Your task to perform on an android device: turn pop-ups on in chrome Image 0: 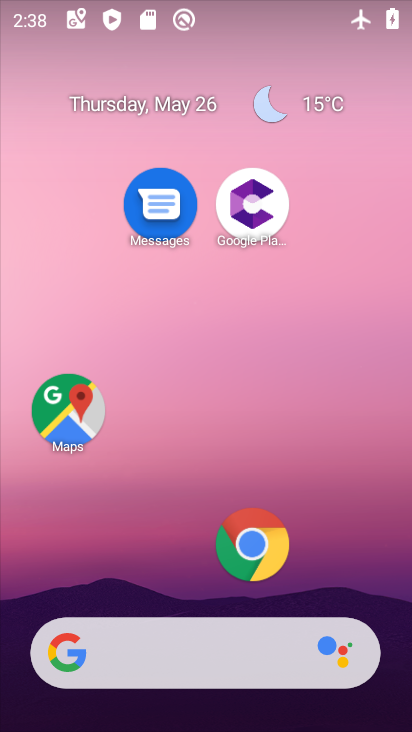
Step 0: click (279, 544)
Your task to perform on an android device: turn pop-ups on in chrome Image 1: 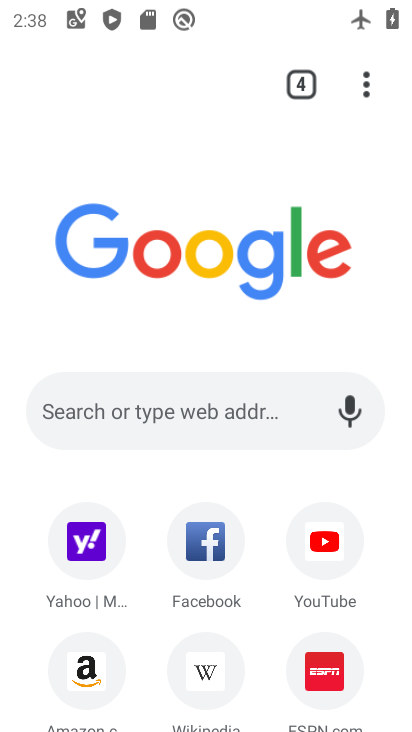
Step 1: click (382, 69)
Your task to perform on an android device: turn pop-ups on in chrome Image 2: 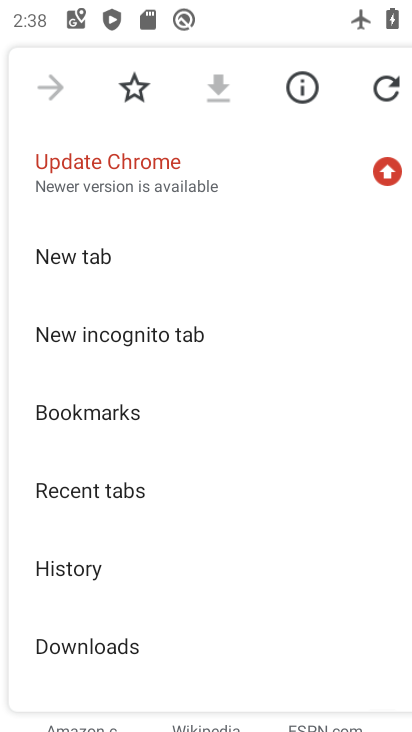
Step 2: drag from (76, 629) to (150, 226)
Your task to perform on an android device: turn pop-ups on in chrome Image 3: 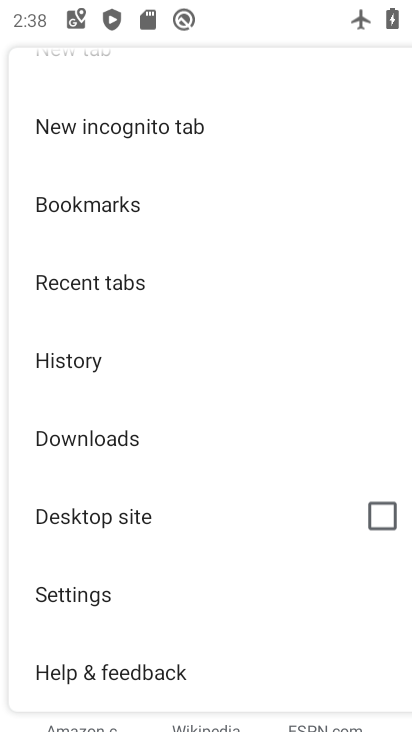
Step 3: click (83, 599)
Your task to perform on an android device: turn pop-ups on in chrome Image 4: 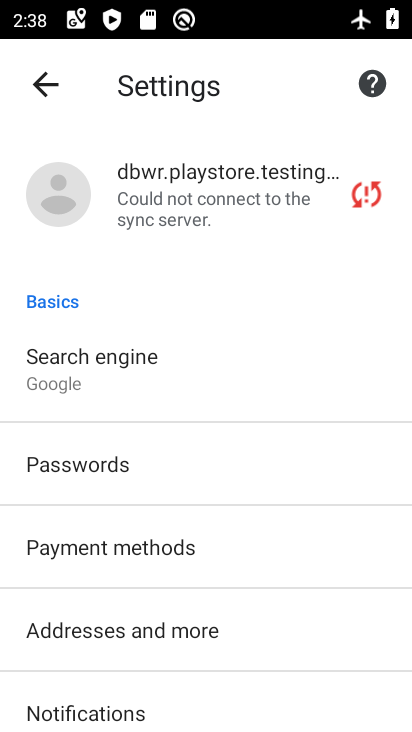
Step 4: drag from (106, 579) to (138, 229)
Your task to perform on an android device: turn pop-ups on in chrome Image 5: 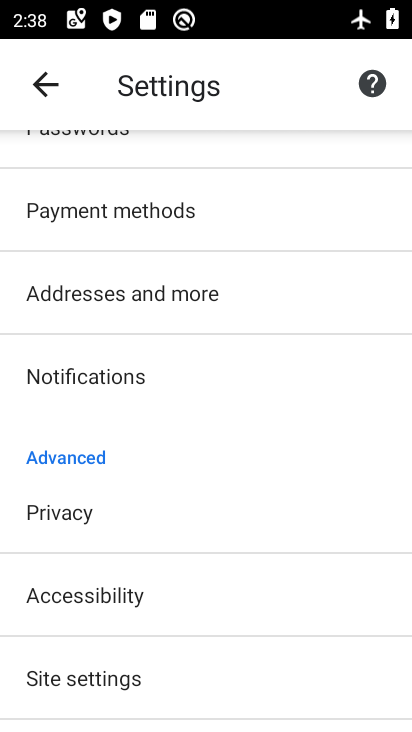
Step 5: drag from (114, 639) to (117, 245)
Your task to perform on an android device: turn pop-ups on in chrome Image 6: 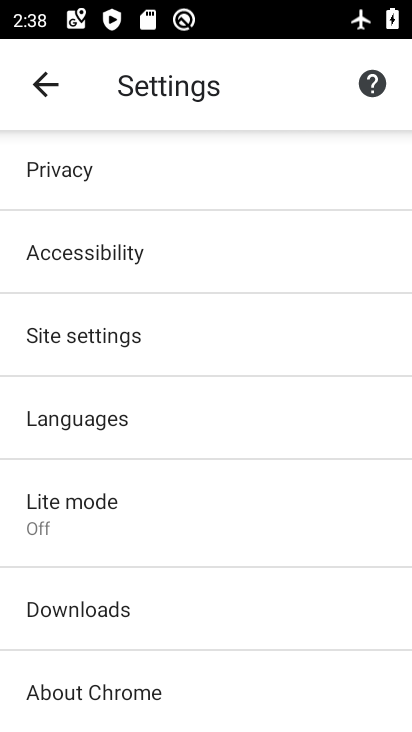
Step 6: drag from (111, 633) to (203, 211)
Your task to perform on an android device: turn pop-ups on in chrome Image 7: 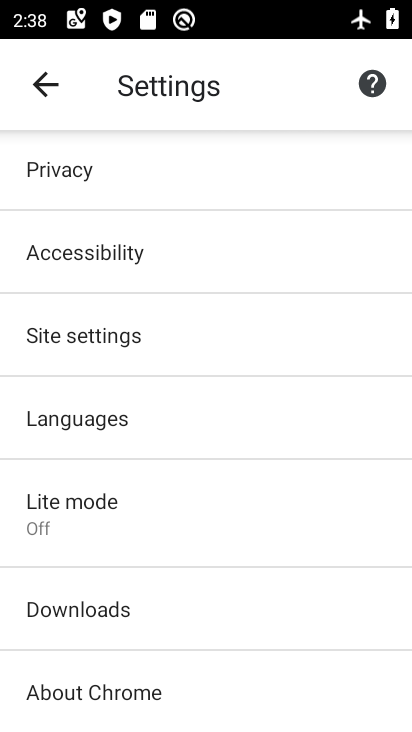
Step 7: click (134, 326)
Your task to perform on an android device: turn pop-ups on in chrome Image 8: 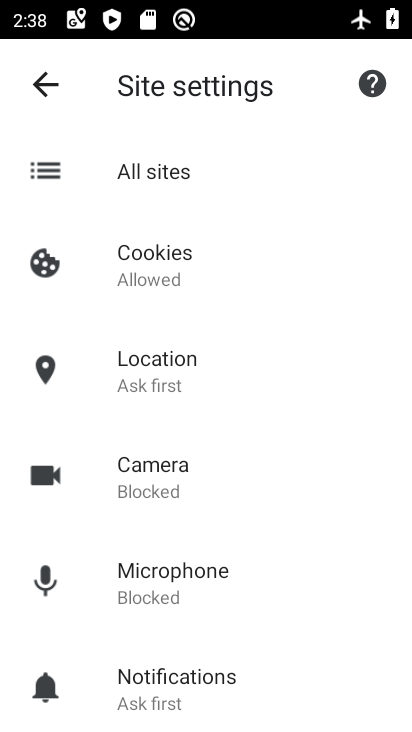
Step 8: drag from (125, 674) to (255, 225)
Your task to perform on an android device: turn pop-ups on in chrome Image 9: 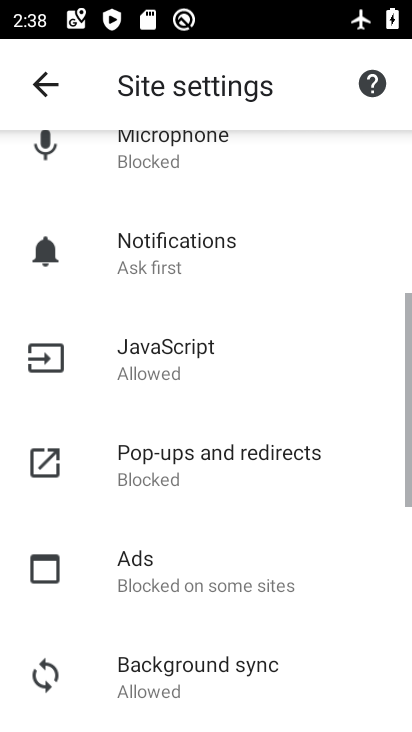
Step 9: click (266, 445)
Your task to perform on an android device: turn pop-ups on in chrome Image 10: 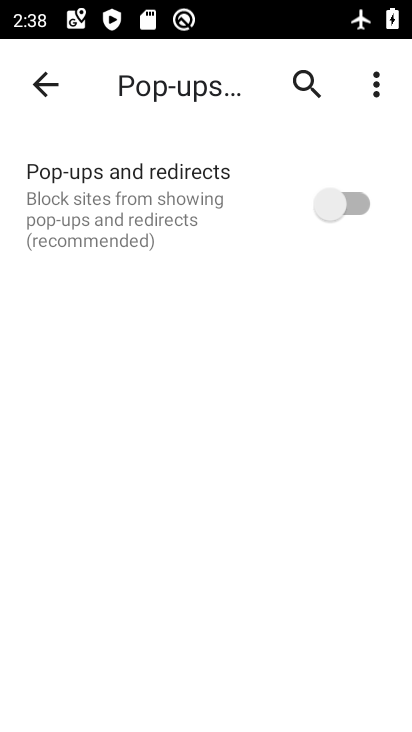
Step 10: click (351, 200)
Your task to perform on an android device: turn pop-ups on in chrome Image 11: 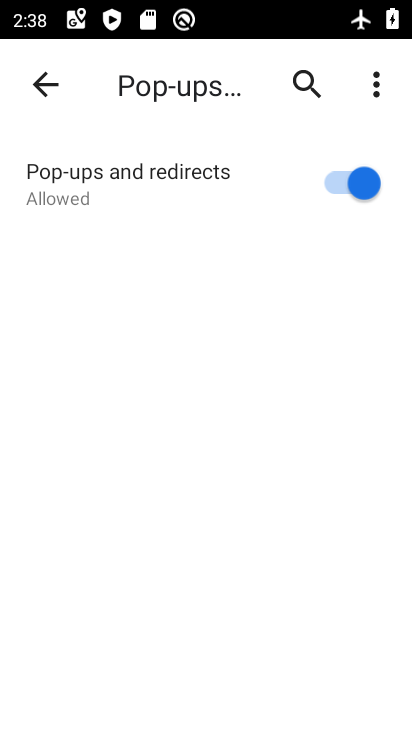
Step 11: task complete